Your task to perform on an android device: delete browsing data in the chrome app Image 0: 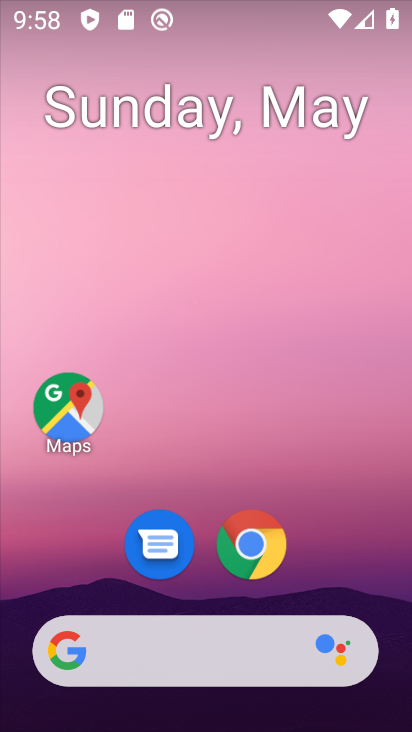
Step 0: click (256, 565)
Your task to perform on an android device: delete browsing data in the chrome app Image 1: 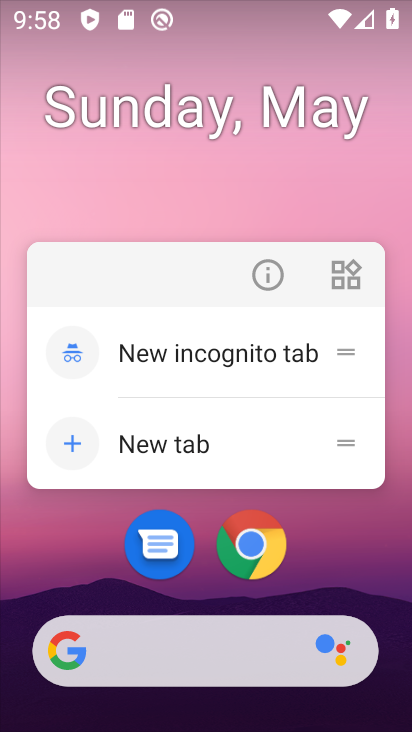
Step 1: drag from (367, 576) to (316, 14)
Your task to perform on an android device: delete browsing data in the chrome app Image 2: 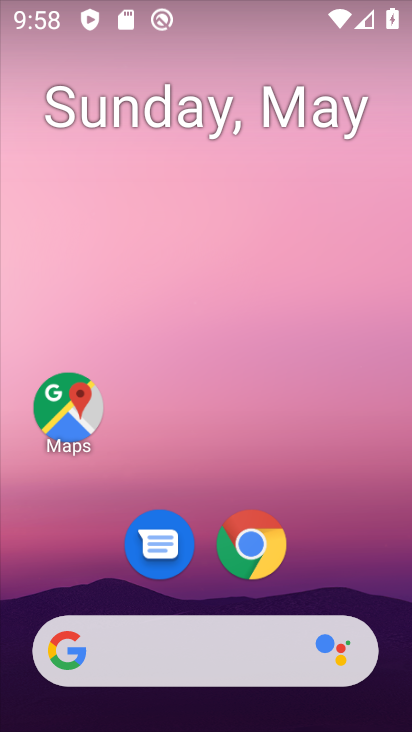
Step 2: drag from (380, 592) to (287, 102)
Your task to perform on an android device: delete browsing data in the chrome app Image 3: 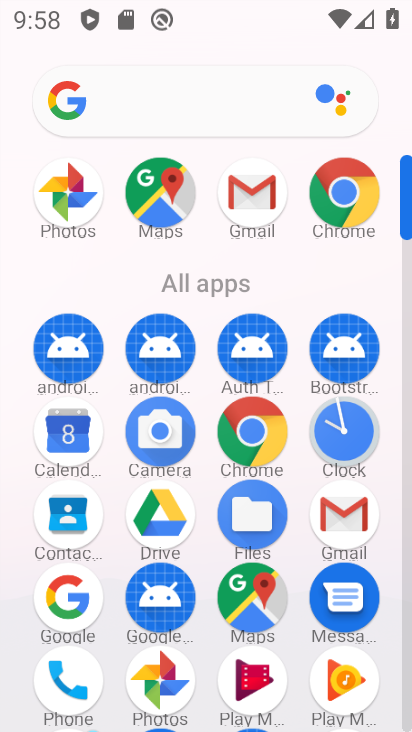
Step 3: click (346, 203)
Your task to perform on an android device: delete browsing data in the chrome app Image 4: 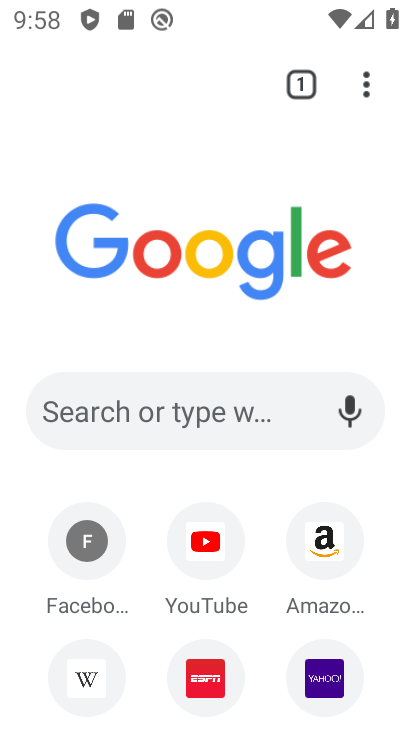
Step 4: drag from (371, 78) to (80, 470)
Your task to perform on an android device: delete browsing data in the chrome app Image 5: 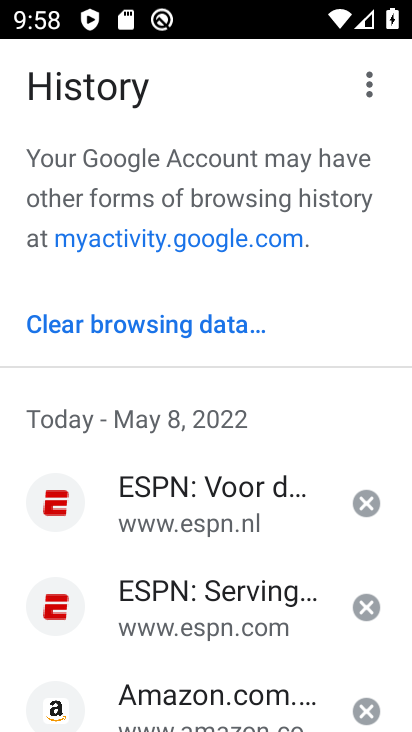
Step 5: click (118, 343)
Your task to perform on an android device: delete browsing data in the chrome app Image 6: 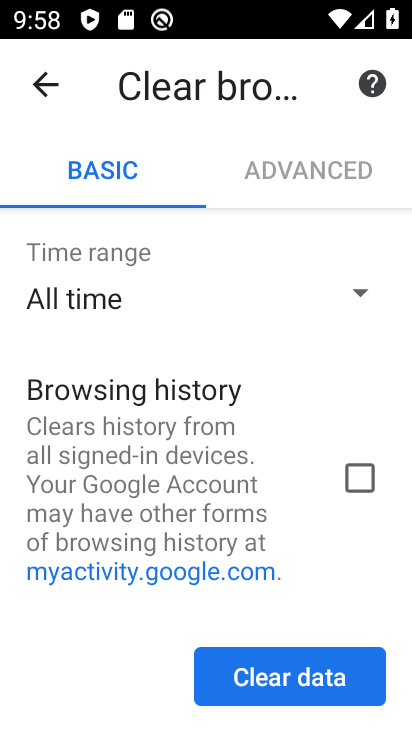
Step 6: click (362, 473)
Your task to perform on an android device: delete browsing data in the chrome app Image 7: 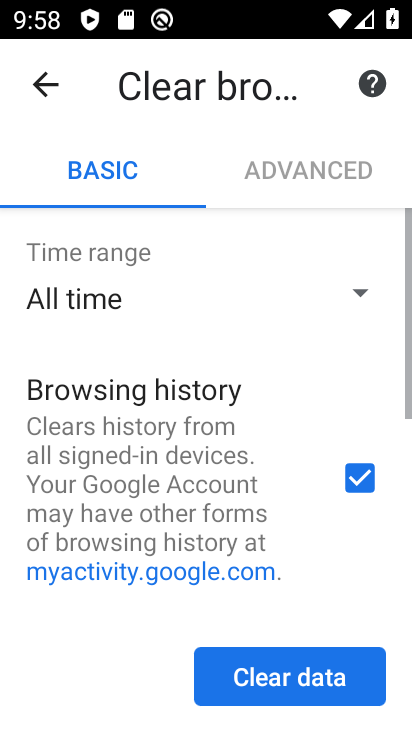
Step 7: drag from (246, 555) to (248, 270)
Your task to perform on an android device: delete browsing data in the chrome app Image 8: 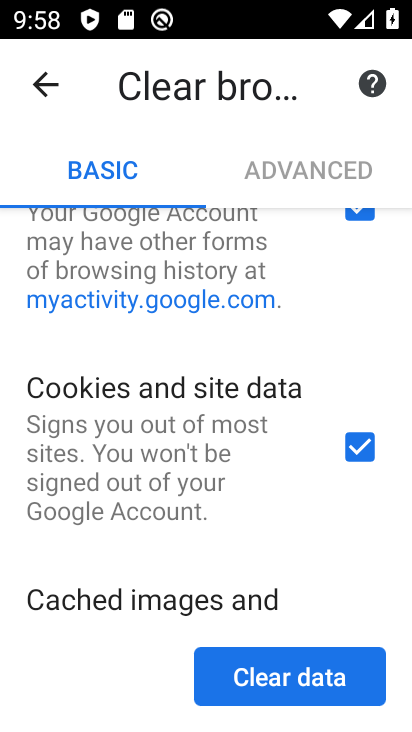
Step 8: click (367, 495)
Your task to perform on an android device: delete browsing data in the chrome app Image 9: 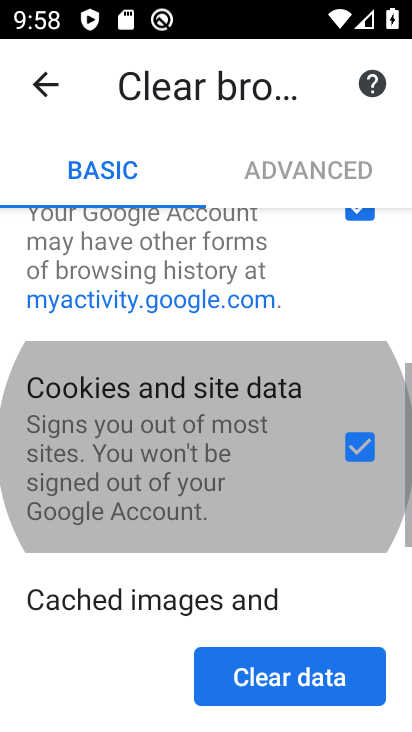
Step 9: click (367, 456)
Your task to perform on an android device: delete browsing data in the chrome app Image 10: 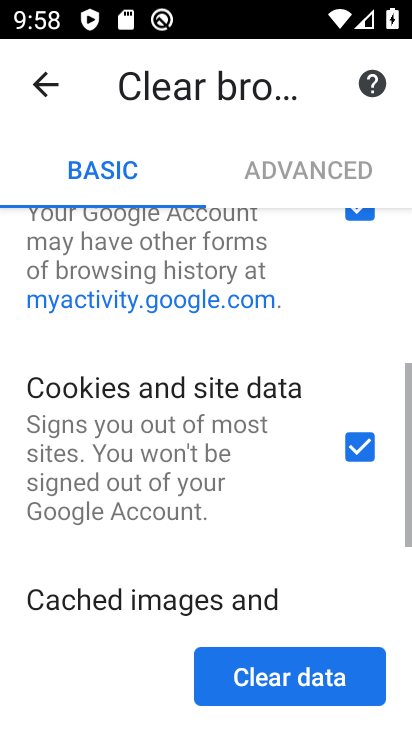
Step 10: drag from (264, 573) to (250, 243)
Your task to perform on an android device: delete browsing data in the chrome app Image 11: 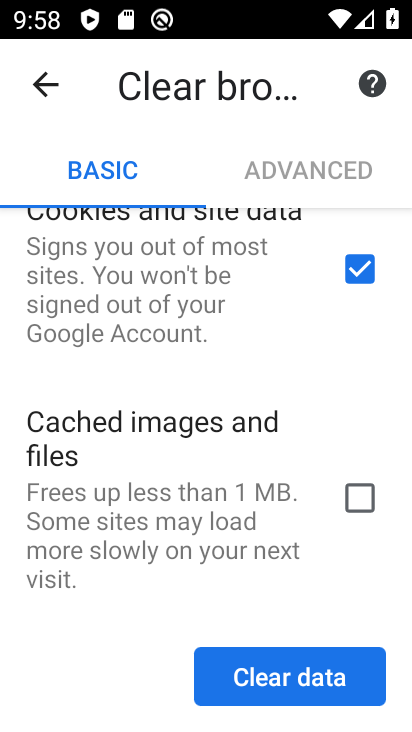
Step 11: click (349, 282)
Your task to perform on an android device: delete browsing data in the chrome app Image 12: 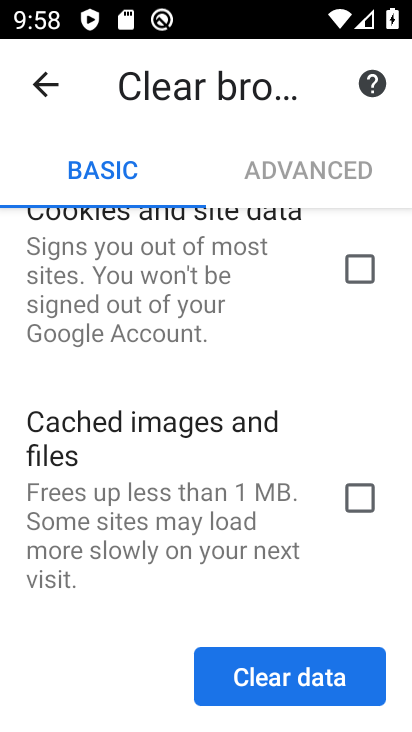
Step 12: click (290, 696)
Your task to perform on an android device: delete browsing data in the chrome app Image 13: 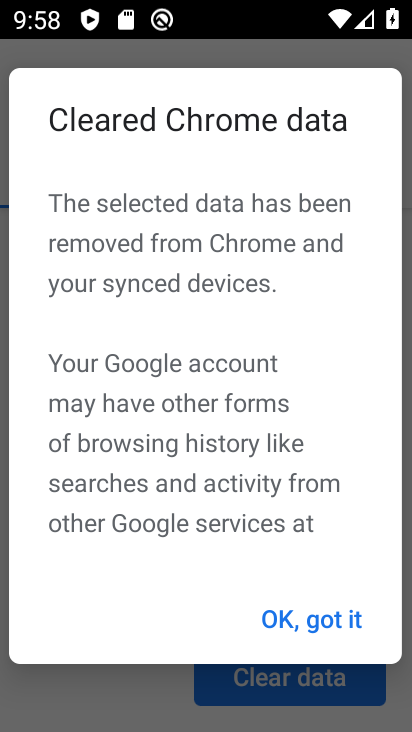
Step 13: click (360, 614)
Your task to perform on an android device: delete browsing data in the chrome app Image 14: 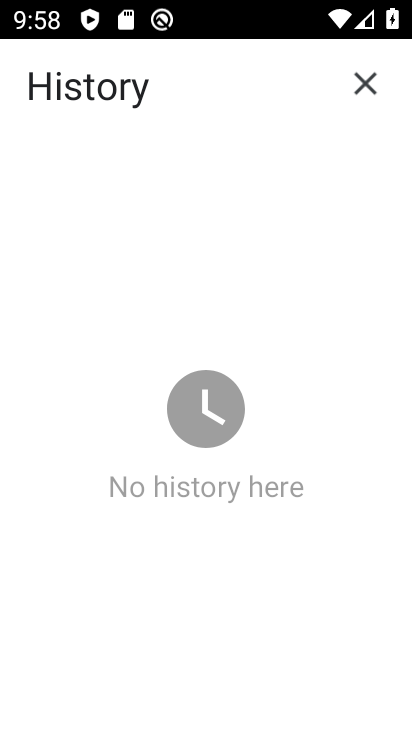
Step 14: task complete